Your task to perform on an android device: all mails in gmail Image 0: 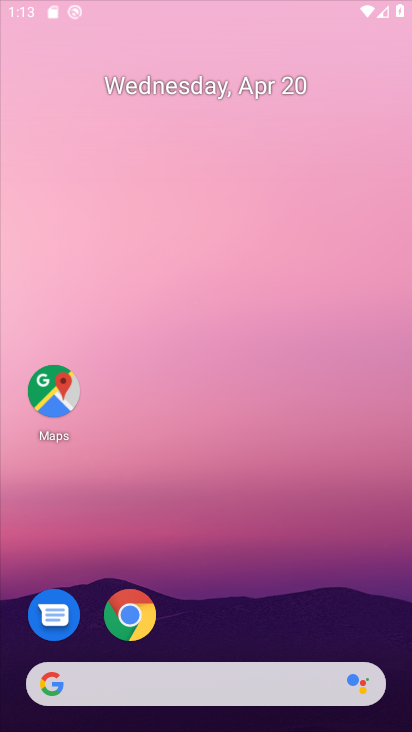
Step 0: click (132, 608)
Your task to perform on an android device: all mails in gmail Image 1: 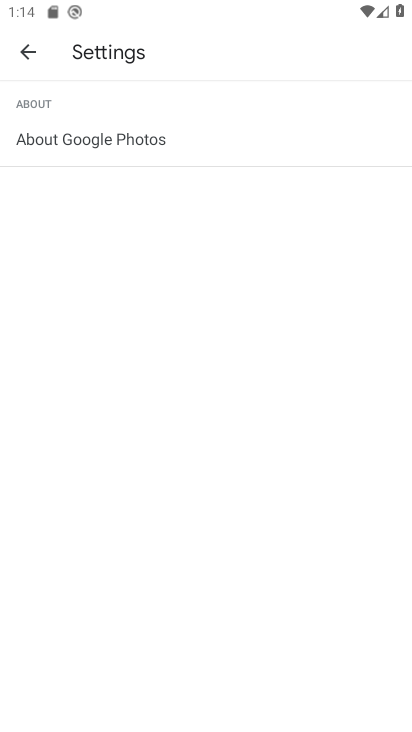
Step 1: press home button
Your task to perform on an android device: all mails in gmail Image 2: 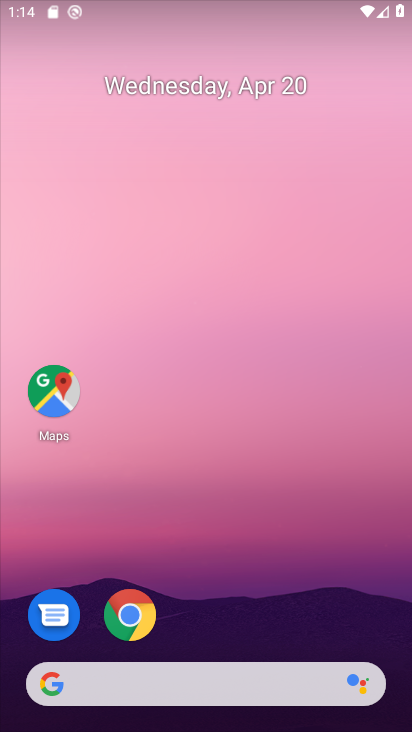
Step 2: drag from (243, 582) to (253, 80)
Your task to perform on an android device: all mails in gmail Image 3: 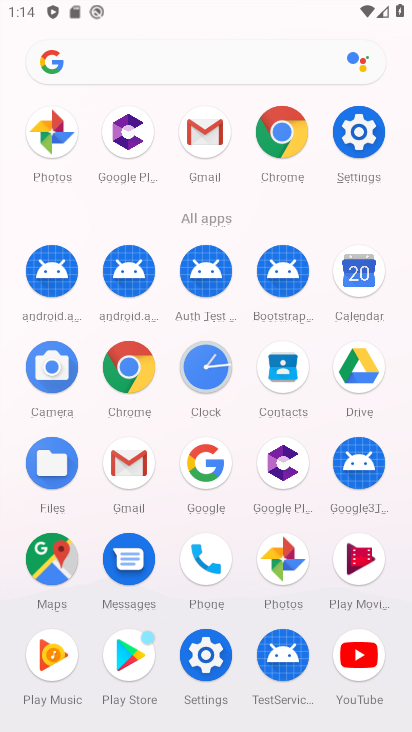
Step 3: click (206, 155)
Your task to perform on an android device: all mails in gmail Image 4: 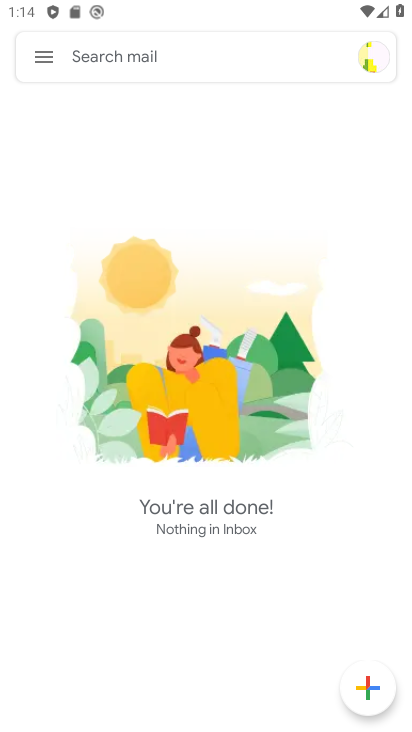
Step 4: click (29, 48)
Your task to perform on an android device: all mails in gmail Image 5: 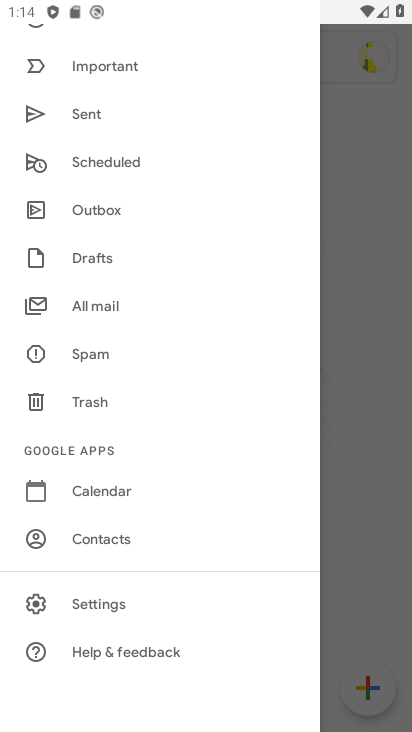
Step 5: click (89, 299)
Your task to perform on an android device: all mails in gmail Image 6: 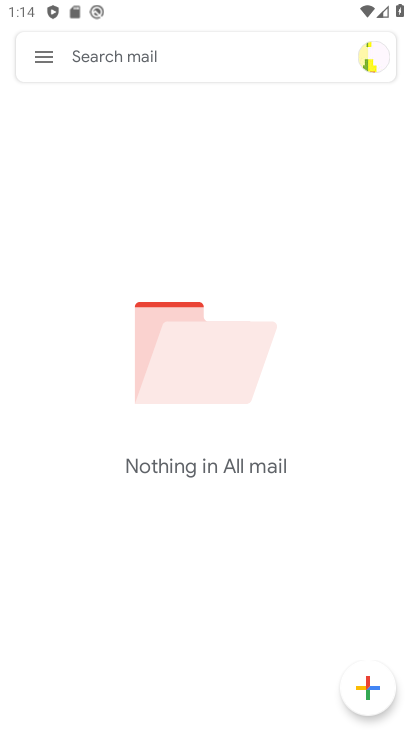
Step 6: task complete